Your task to perform on an android device: snooze an email in the gmail app Image 0: 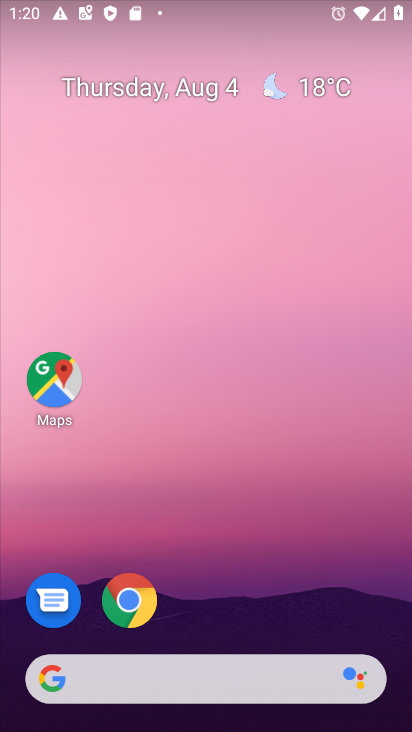
Step 0: drag from (143, 678) to (326, 192)
Your task to perform on an android device: snooze an email in the gmail app Image 1: 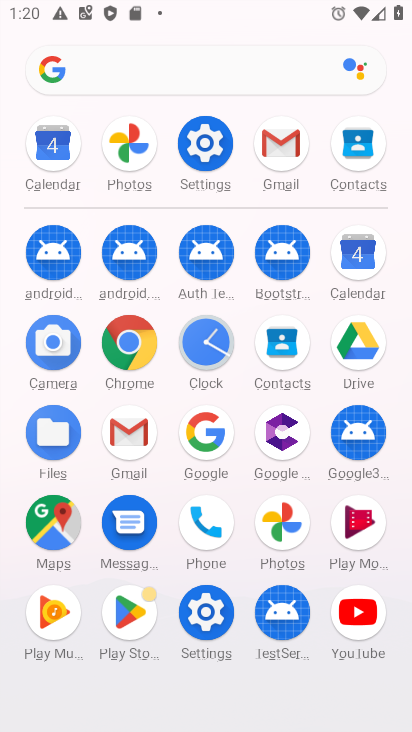
Step 1: click (278, 146)
Your task to perform on an android device: snooze an email in the gmail app Image 2: 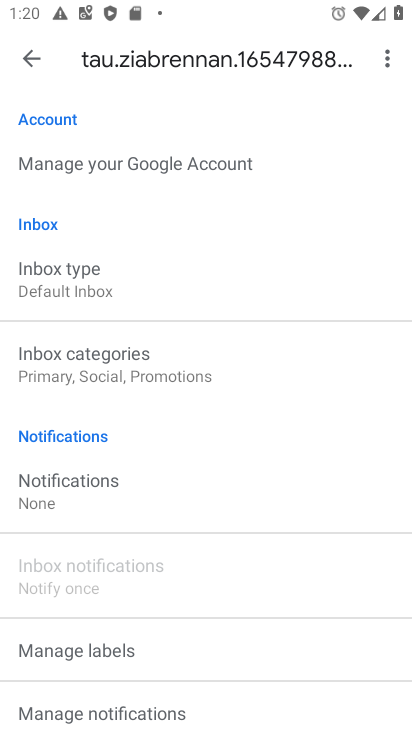
Step 2: click (32, 63)
Your task to perform on an android device: snooze an email in the gmail app Image 3: 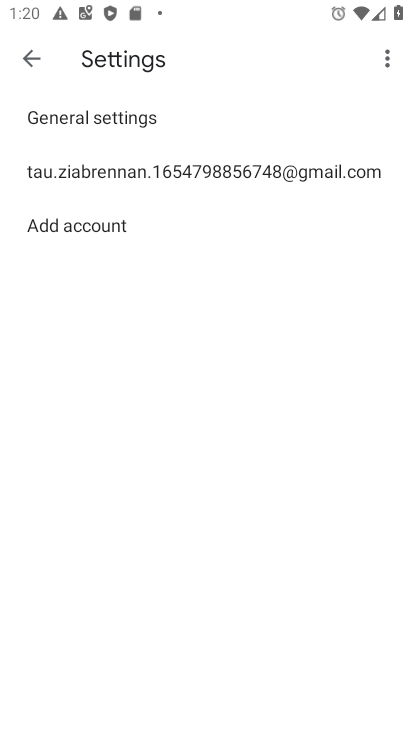
Step 3: click (26, 71)
Your task to perform on an android device: snooze an email in the gmail app Image 4: 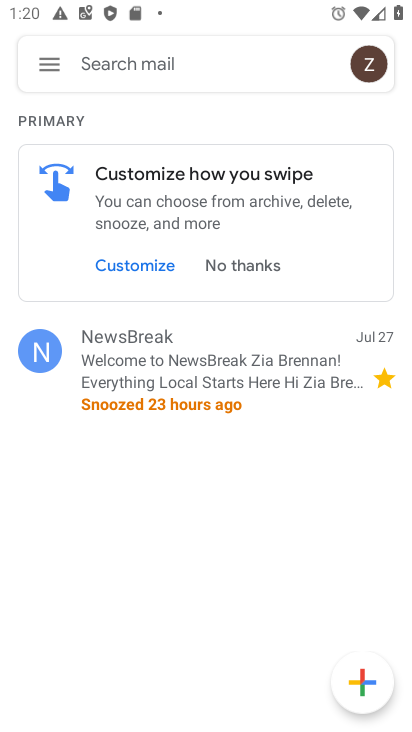
Step 4: click (52, 68)
Your task to perform on an android device: snooze an email in the gmail app Image 5: 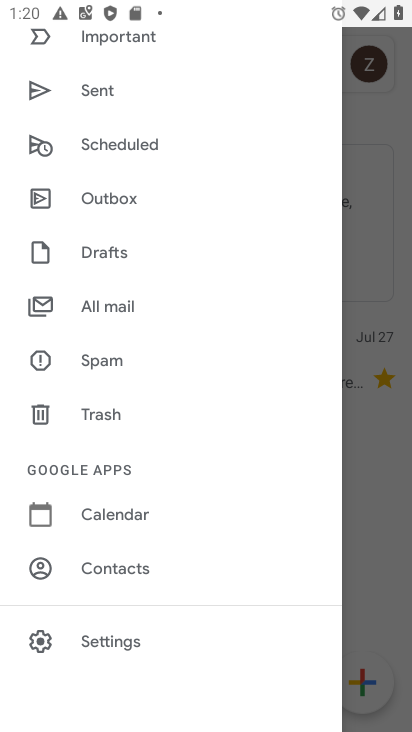
Step 5: click (115, 313)
Your task to perform on an android device: snooze an email in the gmail app Image 6: 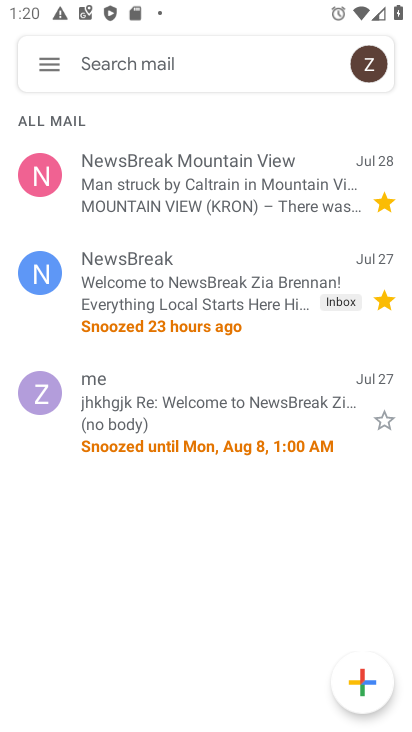
Step 6: click (43, 173)
Your task to perform on an android device: snooze an email in the gmail app Image 7: 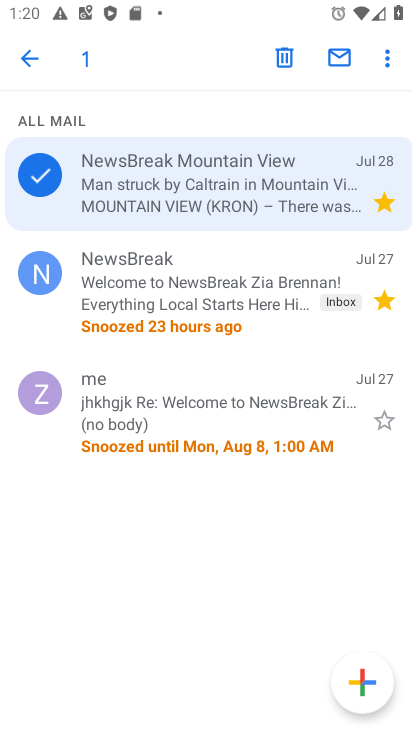
Step 7: click (394, 58)
Your task to perform on an android device: snooze an email in the gmail app Image 8: 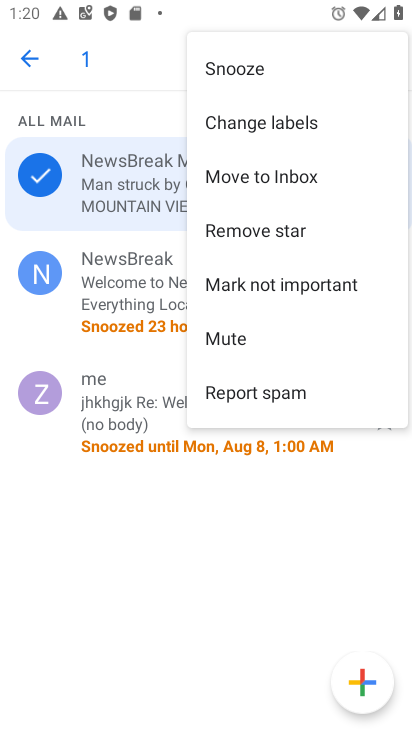
Step 8: click (257, 75)
Your task to perform on an android device: snooze an email in the gmail app Image 9: 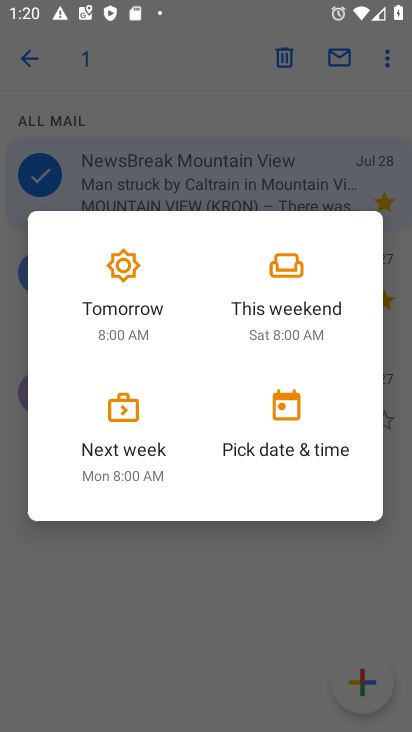
Step 9: click (274, 318)
Your task to perform on an android device: snooze an email in the gmail app Image 10: 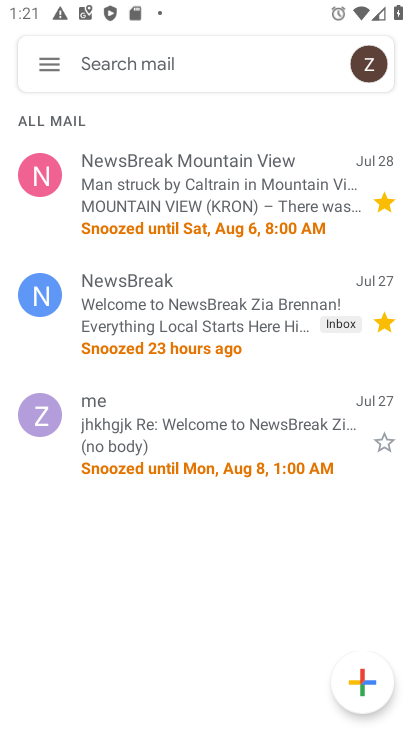
Step 10: task complete